Your task to perform on an android device: Go to sound settings Image 0: 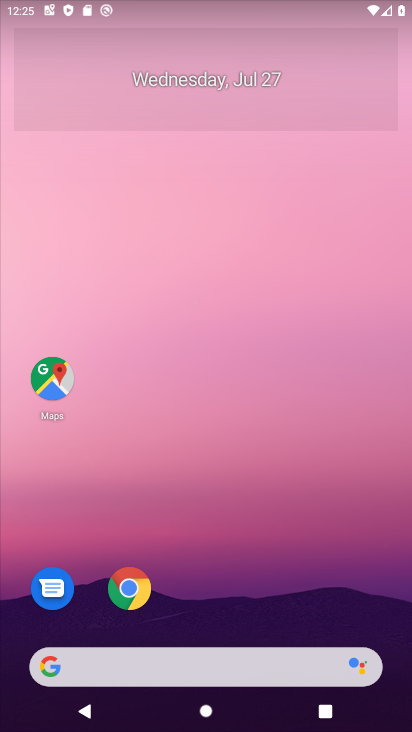
Step 0: drag from (195, 283) to (248, 124)
Your task to perform on an android device: Go to sound settings Image 1: 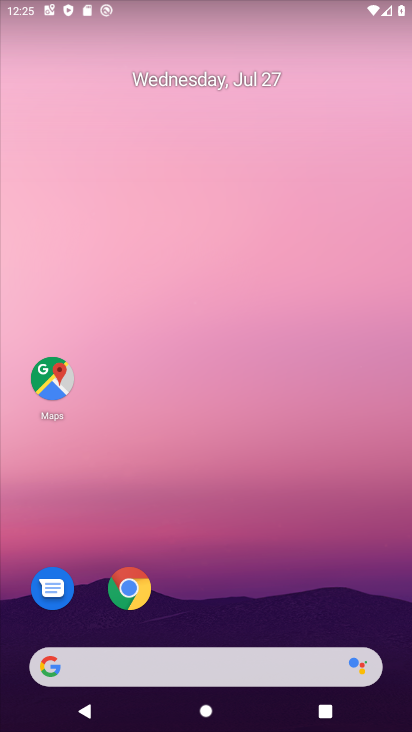
Step 1: drag from (260, 215) to (301, 53)
Your task to perform on an android device: Go to sound settings Image 2: 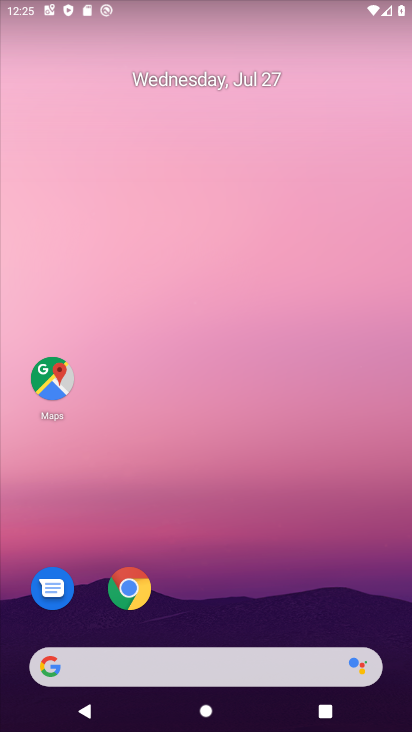
Step 2: drag from (31, 701) to (240, 71)
Your task to perform on an android device: Go to sound settings Image 3: 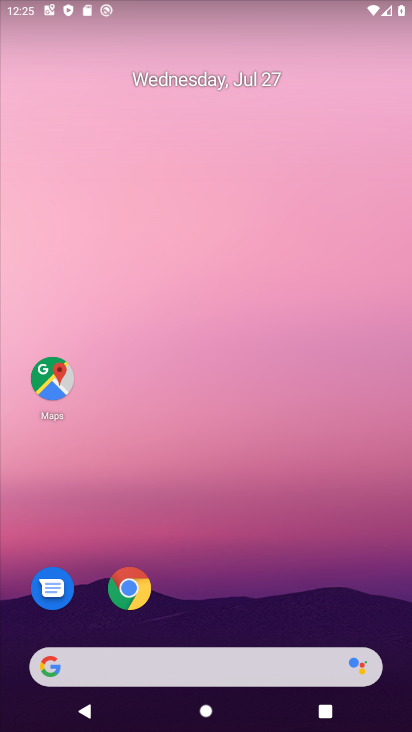
Step 3: drag from (30, 701) to (216, 16)
Your task to perform on an android device: Go to sound settings Image 4: 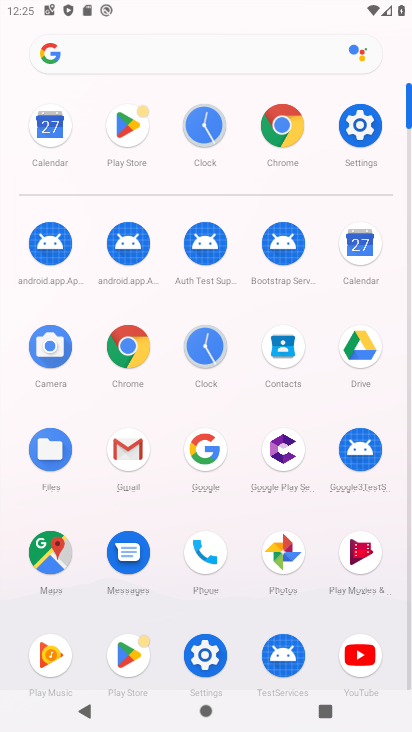
Step 4: click (203, 670)
Your task to perform on an android device: Go to sound settings Image 5: 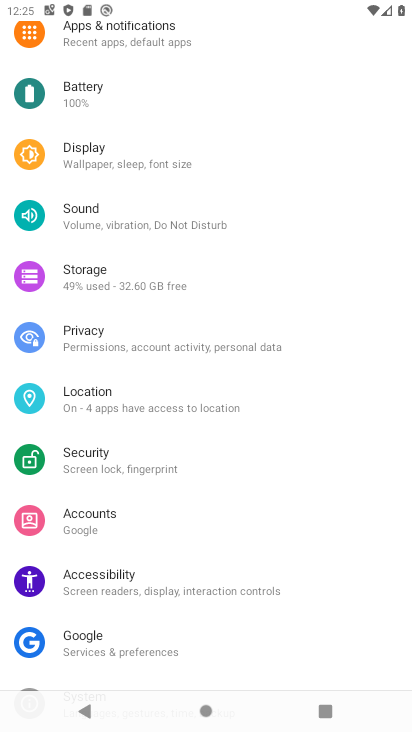
Step 5: click (111, 213)
Your task to perform on an android device: Go to sound settings Image 6: 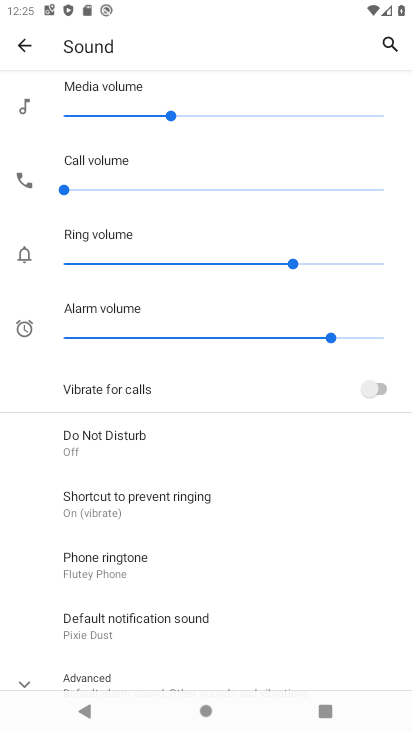
Step 6: task complete